Your task to perform on an android device: Open Youtube and go to "Your channel" Image 0: 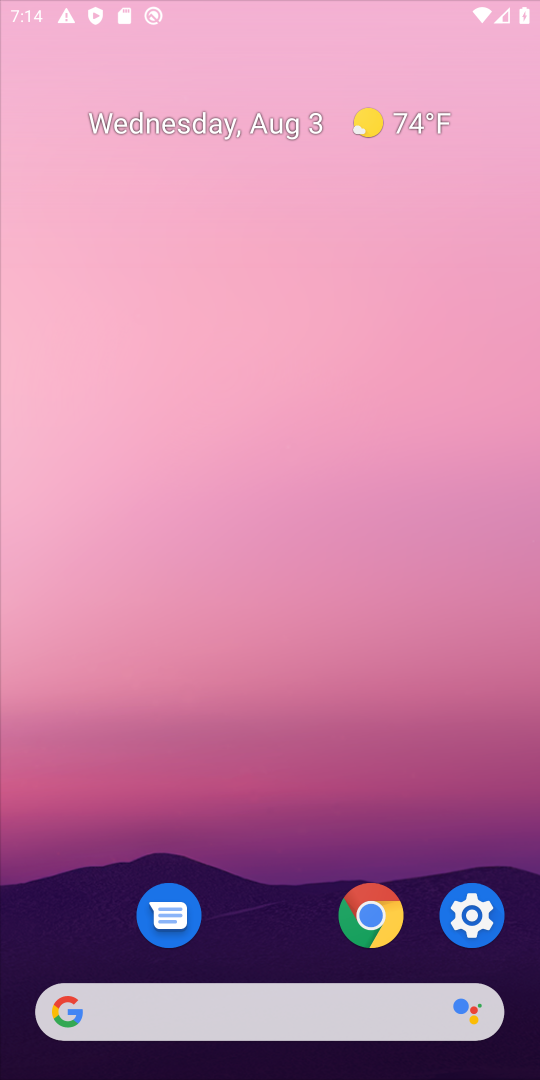
Step 0: press home button
Your task to perform on an android device: Open Youtube and go to "Your channel" Image 1: 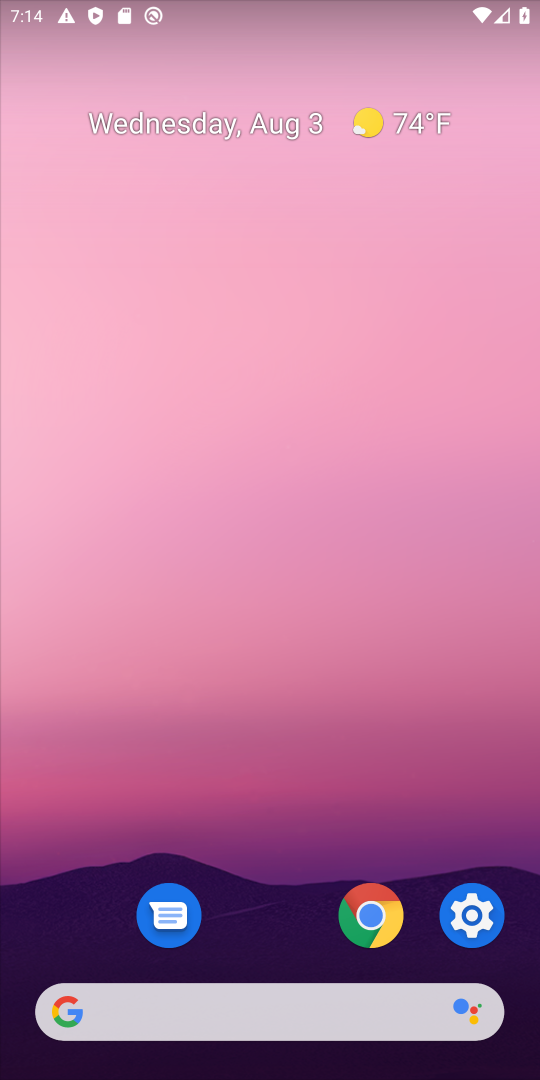
Step 1: drag from (343, 1044) to (154, 194)
Your task to perform on an android device: Open Youtube and go to "Your channel" Image 2: 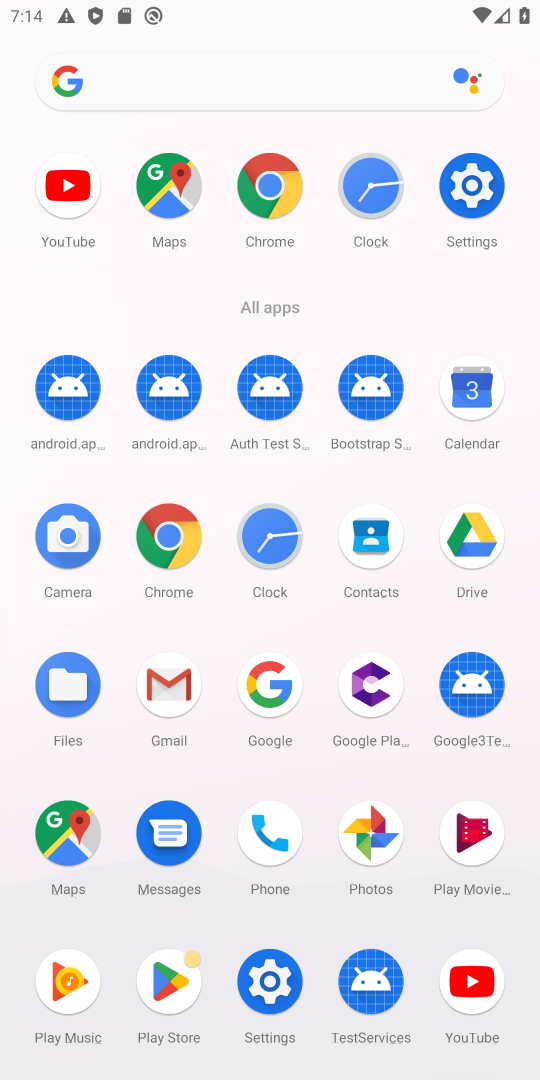
Step 2: click (61, 193)
Your task to perform on an android device: Open Youtube and go to "Your channel" Image 3: 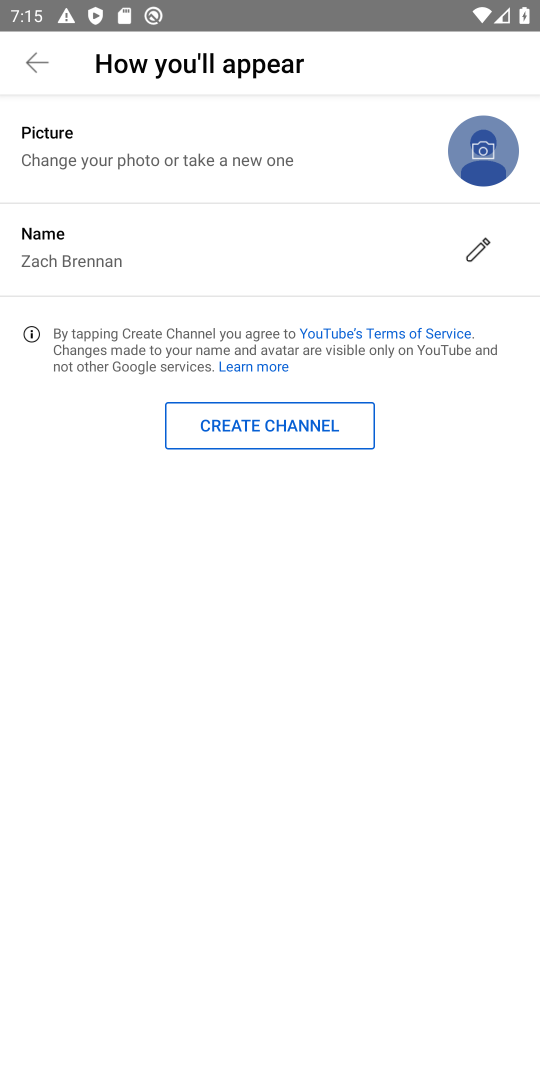
Step 3: click (23, 66)
Your task to perform on an android device: Open Youtube and go to "Your channel" Image 4: 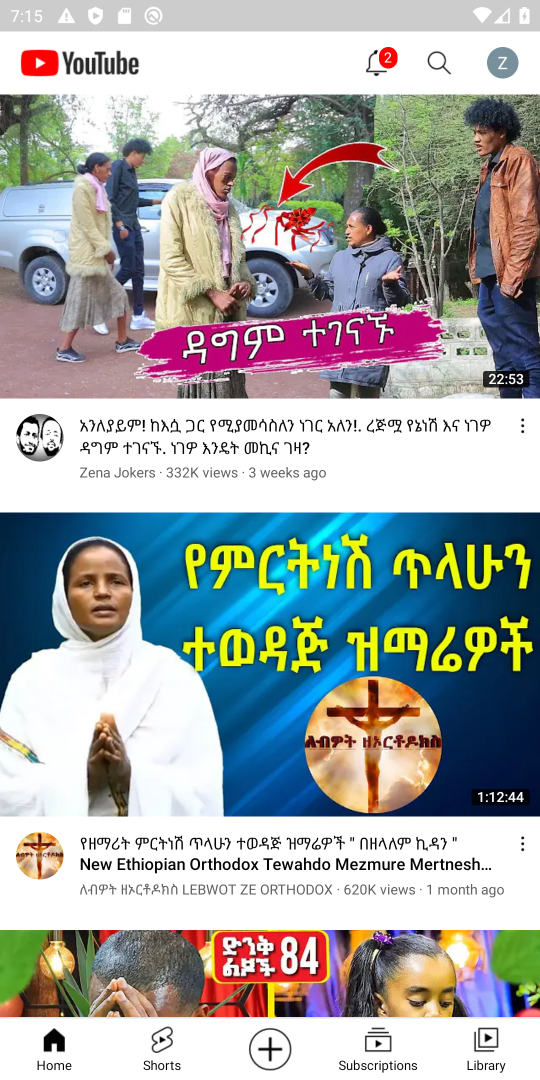
Step 4: click (505, 64)
Your task to perform on an android device: Open Youtube and go to "Your channel" Image 5: 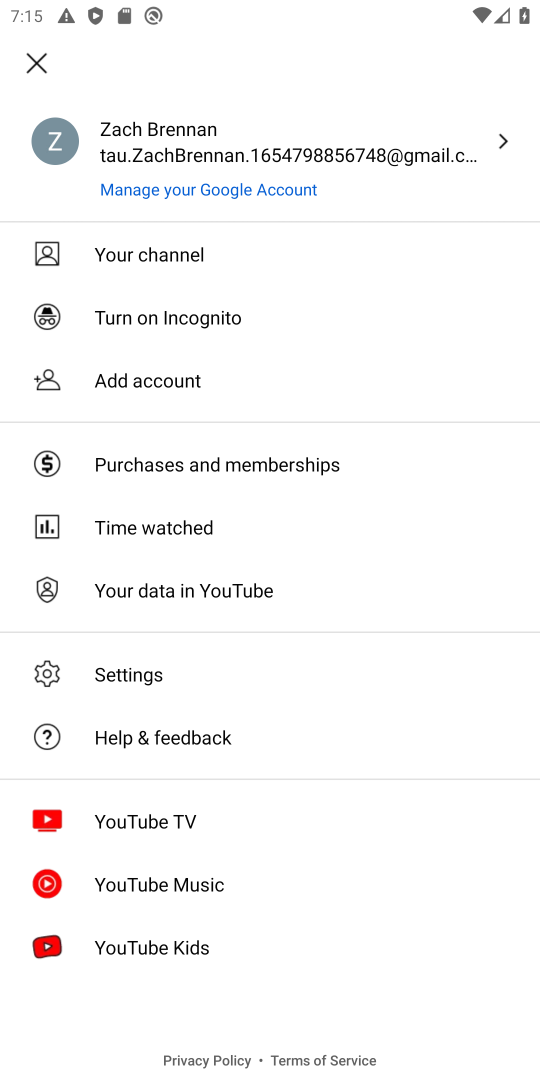
Step 5: click (168, 262)
Your task to perform on an android device: Open Youtube and go to "Your channel" Image 6: 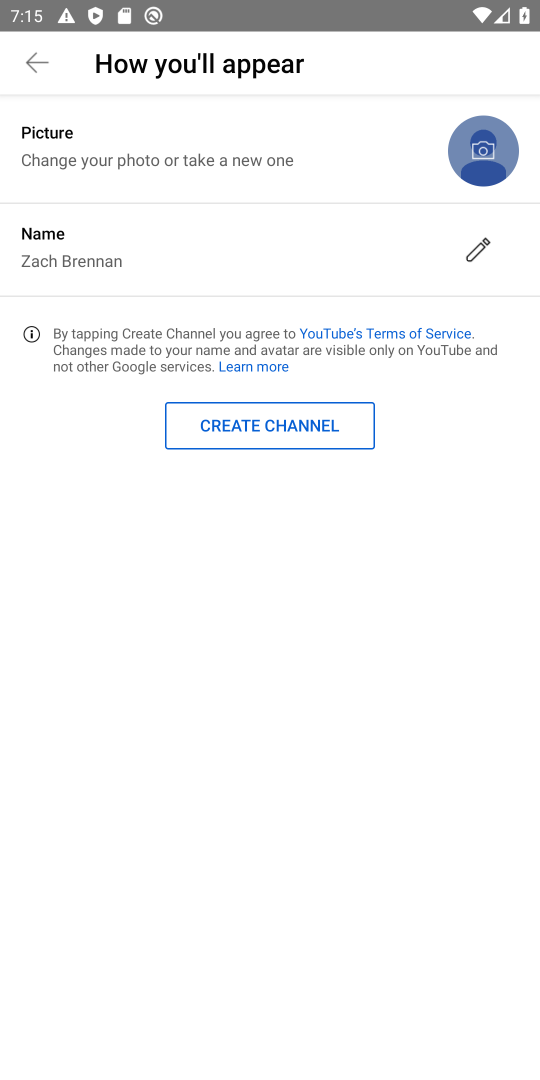
Step 6: task complete